Your task to perform on an android device: Open Youtube and go to "Your channel" Image 0: 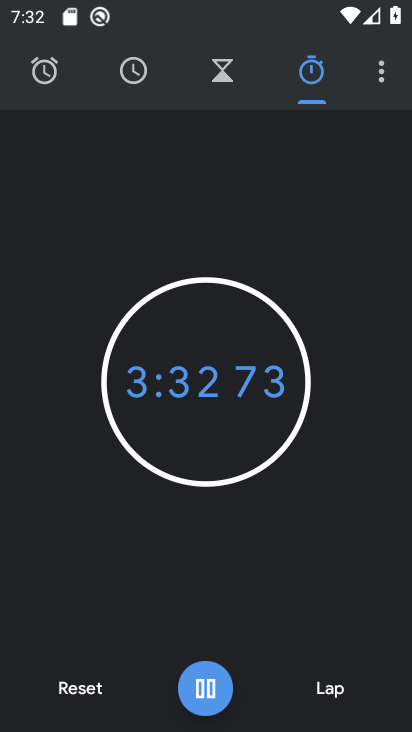
Step 0: press home button
Your task to perform on an android device: Open Youtube and go to "Your channel" Image 1: 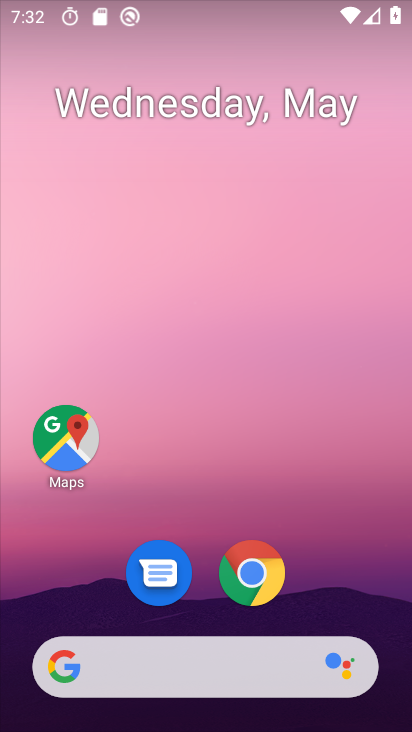
Step 1: drag from (302, 600) to (326, 5)
Your task to perform on an android device: Open Youtube and go to "Your channel" Image 2: 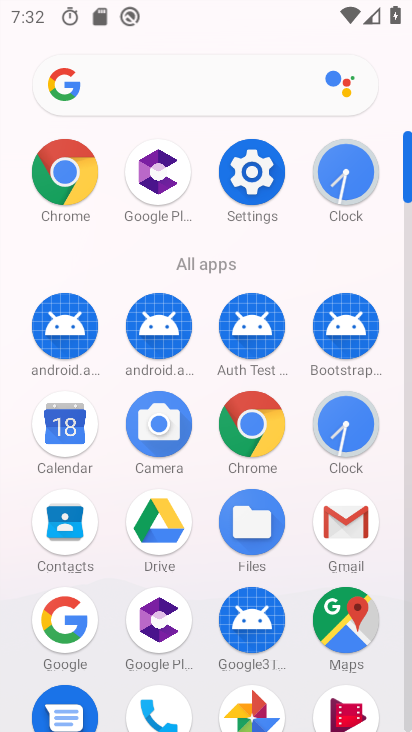
Step 2: drag from (293, 493) to (318, 200)
Your task to perform on an android device: Open Youtube and go to "Your channel" Image 3: 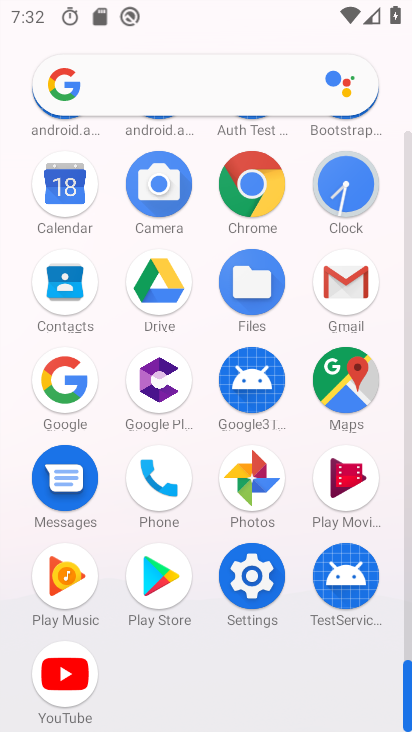
Step 3: click (64, 682)
Your task to perform on an android device: Open Youtube and go to "Your channel" Image 4: 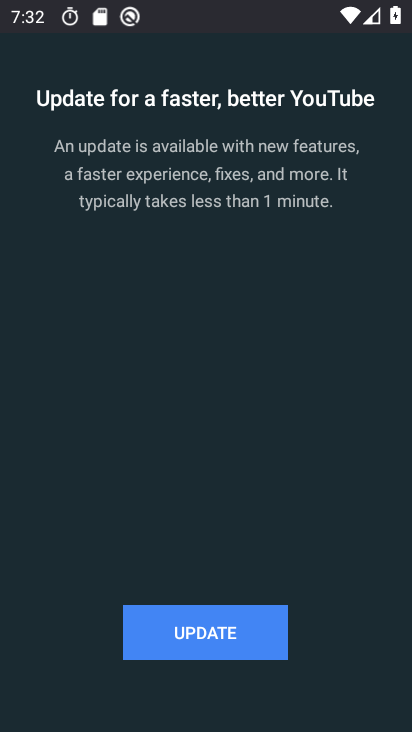
Step 4: click (177, 617)
Your task to perform on an android device: Open Youtube and go to "Your channel" Image 5: 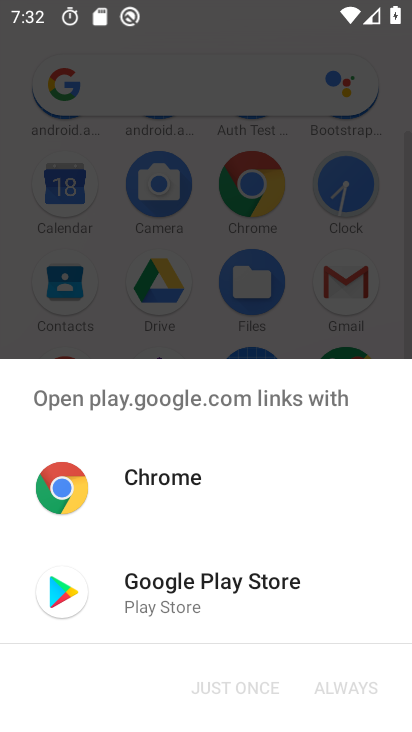
Step 5: click (167, 616)
Your task to perform on an android device: Open Youtube and go to "Your channel" Image 6: 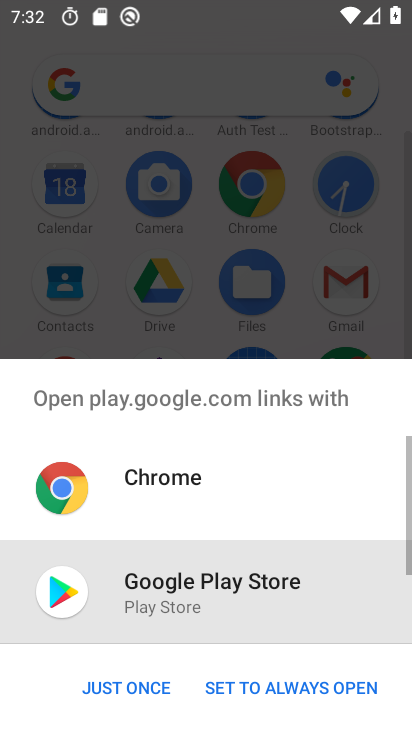
Step 6: click (107, 690)
Your task to perform on an android device: Open Youtube and go to "Your channel" Image 7: 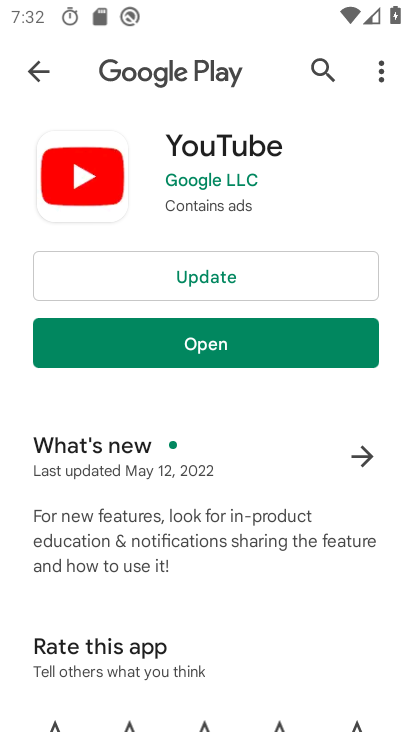
Step 7: click (253, 284)
Your task to perform on an android device: Open Youtube and go to "Your channel" Image 8: 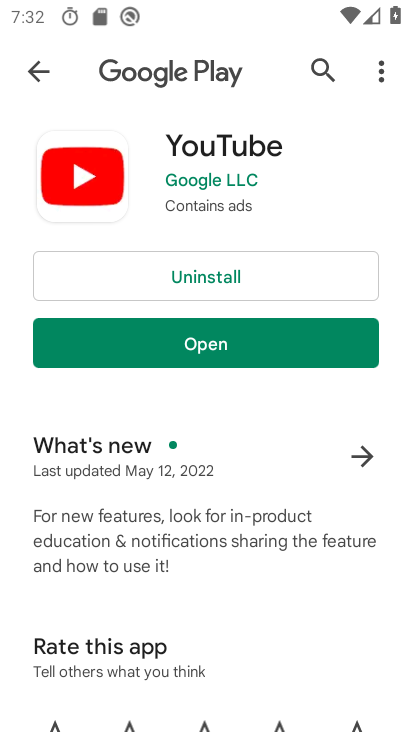
Step 8: click (283, 347)
Your task to perform on an android device: Open Youtube and go to "Your channel" Image 9: 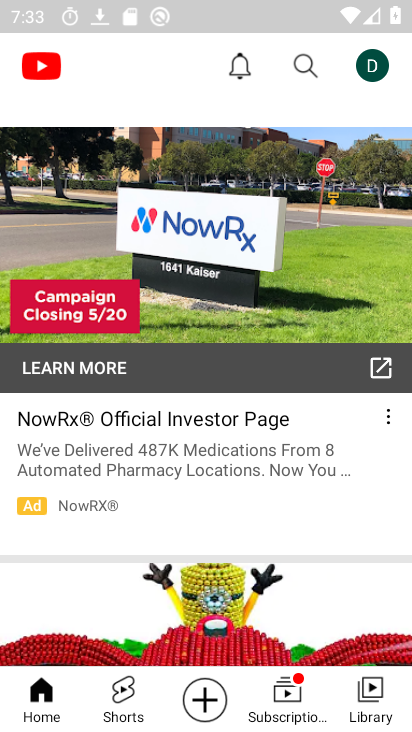
Step 9: click (361, 60)
Your task to perform on an android device: Open Youtube and go to "Your channel" Image 10: 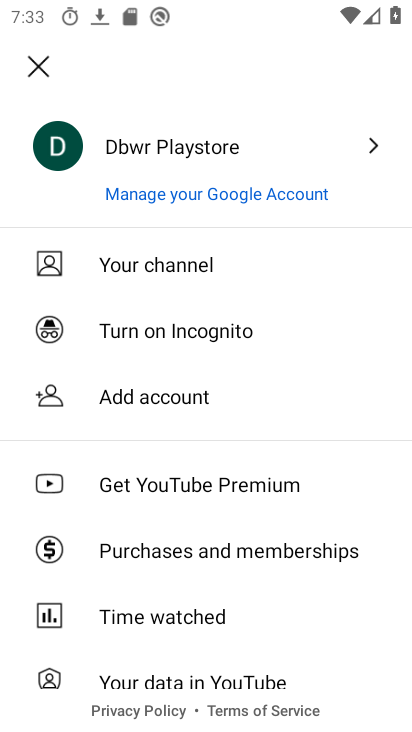
Step 10: click (195, 276)
Your task to perform on an android device: Open Youtube and go to "Your channel" Image 11: 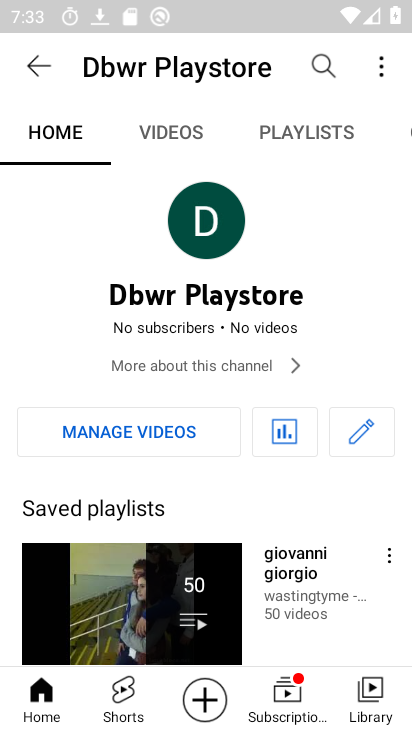
Step 11: task complete